Your task to perform on an android device: turn off picture-in-picture Image 0: 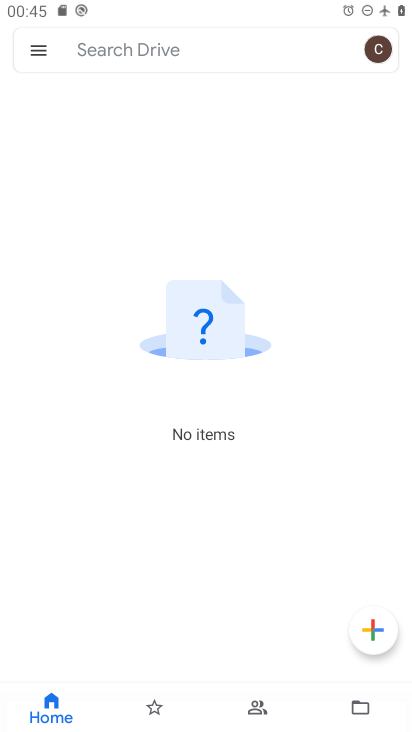
Step 0: press home button
Your task to perform on an android device: turn off picture-in-picture Image 1: 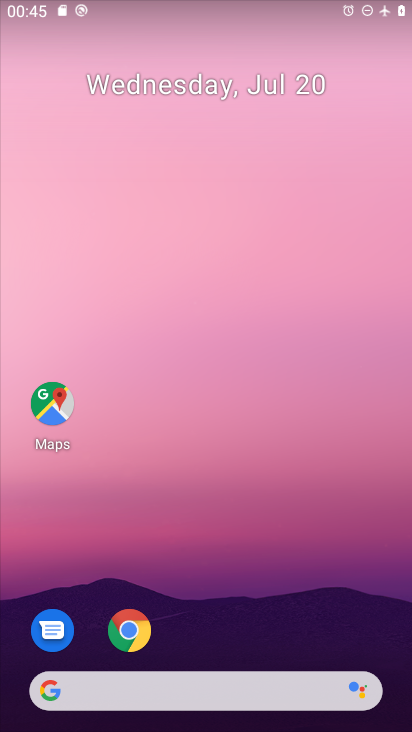
Step 1: click (135, 614)
Your task to perform on an android device: turn off picture-in-picture Image 2: 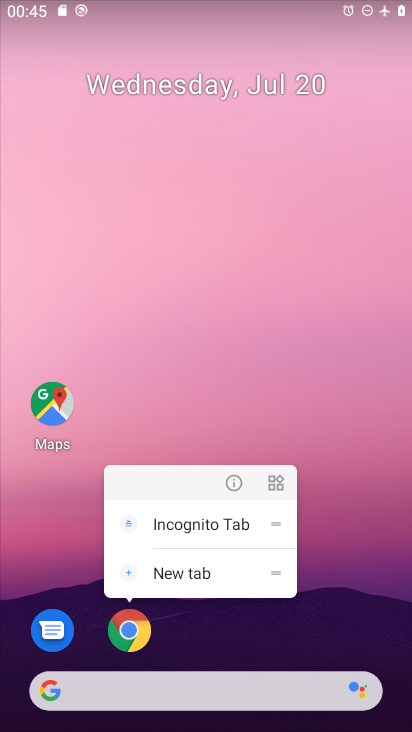
Step 2: click (230, 490)
Your task to perform on an android device: turn off picture-in-picture Image 3: 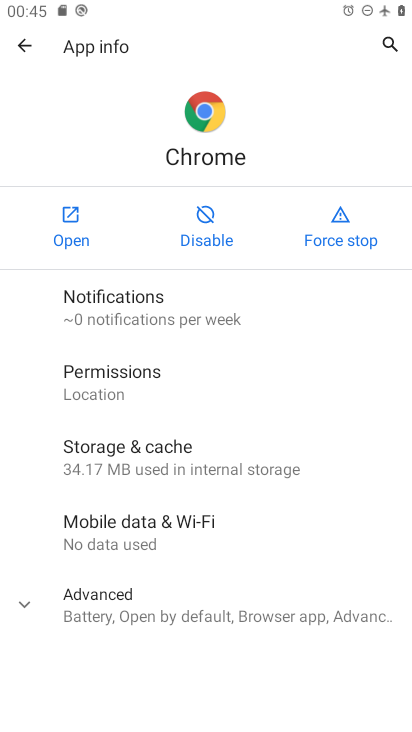
Step 3: click (162, 599)
Your task to perform on an android device: turn off picture-in-picture Image 4: 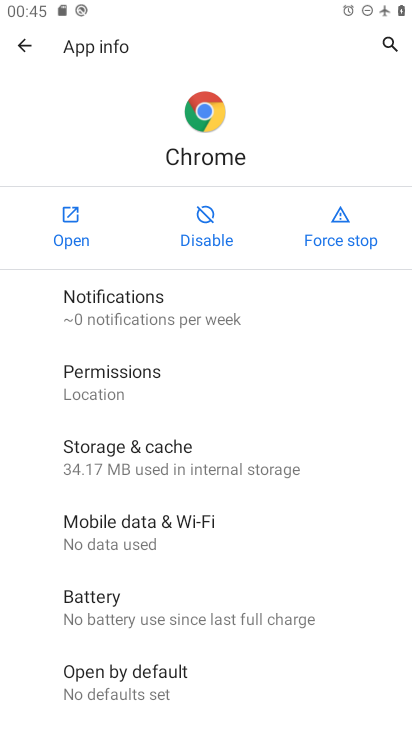
Step 4: drag from (149, 646) to (170, 374)
Your task to perform on an android device: turn off picture-in-picture Image 5: 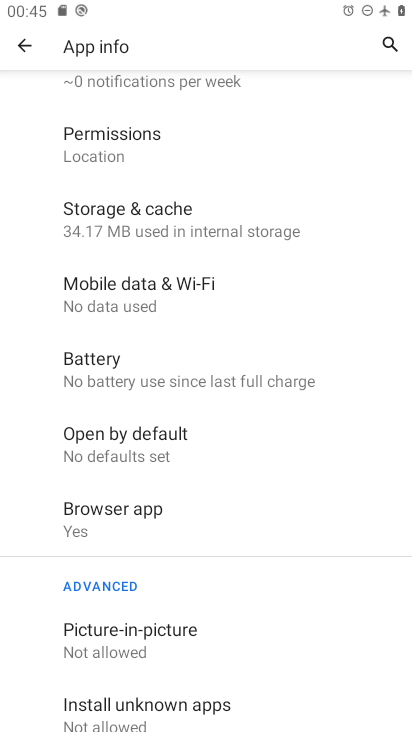
Step 5: click (173, 623)
Your task to perform on an android device: turn off picture-in-picture Image 6: 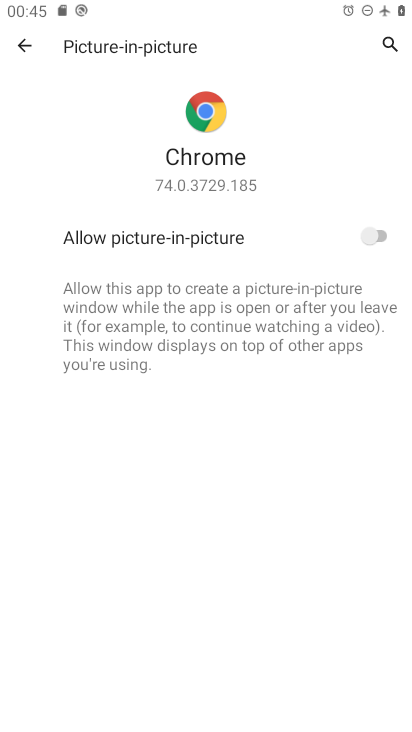
Step 6: task complete